Your task to perform on an android device: Go to Amazon Image 0: 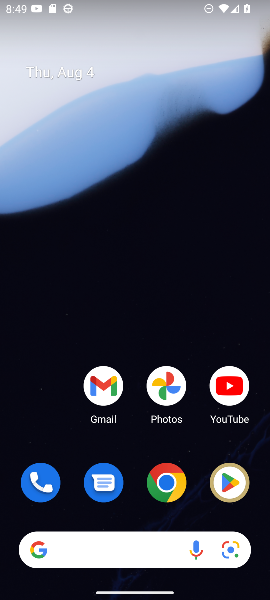
Step 0: click (167, 479)
Your task to perform on an android device: Go to Amazon Image 1: 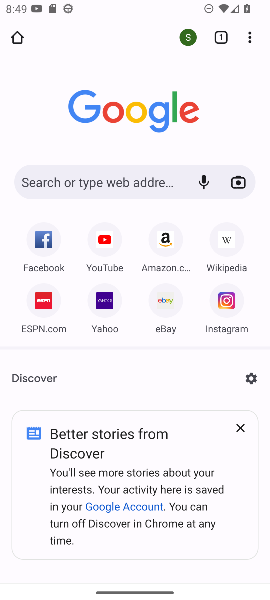
Step 1: click (165, 226)
Your task to perform on an android device: Go to Amazon Image 2: 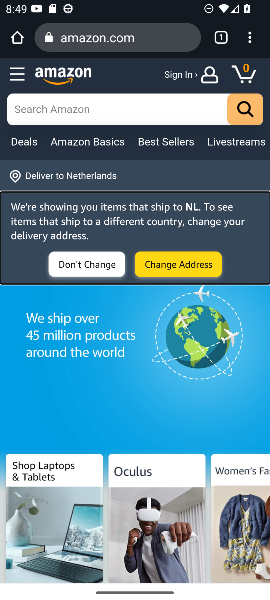
Step 2: task complete